Your task to perform on an android device: Check the news Image 0: 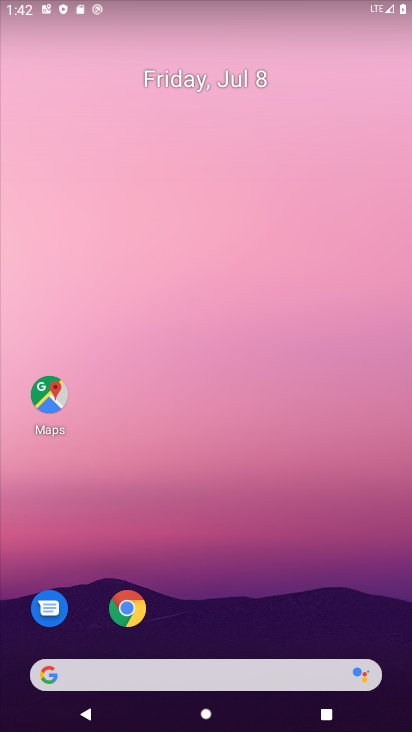
Step 0: drag from (4, 259) to (407, 316)
Your task to perform on an android device: Check the news Image 1: 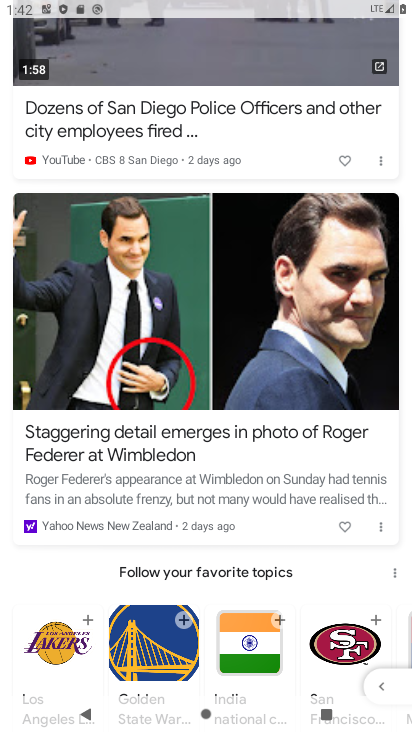
Step 1: task complete